Your task to perform on an android device: toggle wifi Image 0: 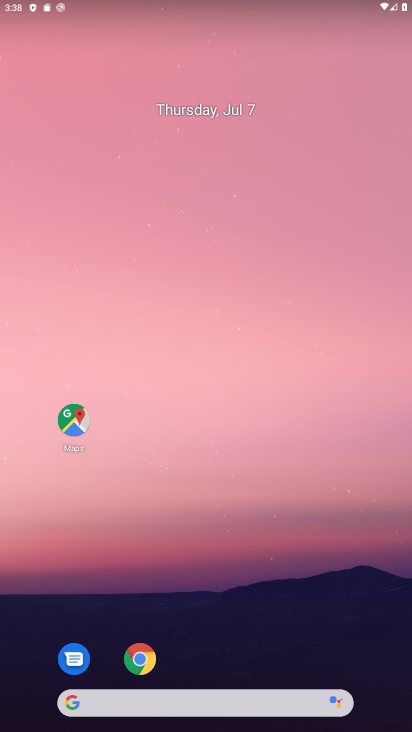
Step 0: drag from (210, 687) to (326, 45)
Your task to perform on an android device: toggle wifi Image 1: 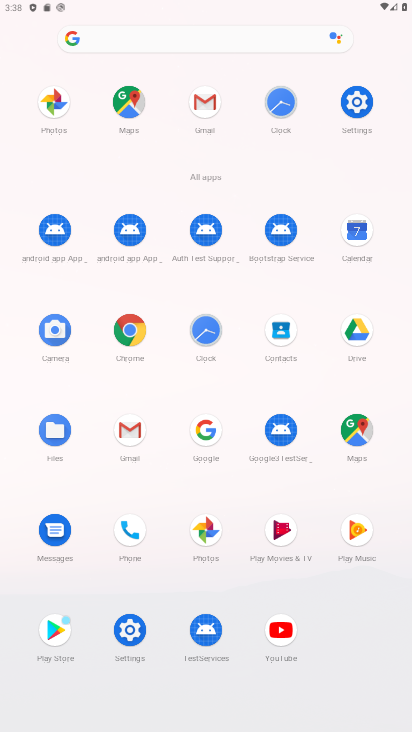
Step 1: click (119, 632)
Your task to perform on an android device: toggle wifi Image 2: 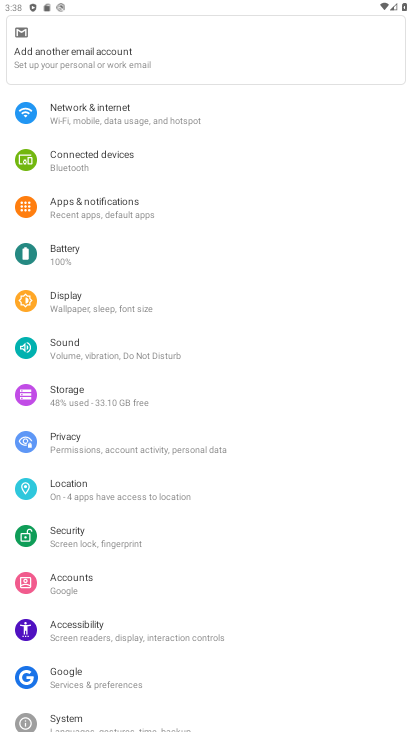
Step 2: click (224, 120)
Your task to perform on an android device: toggle wifi Image 3: 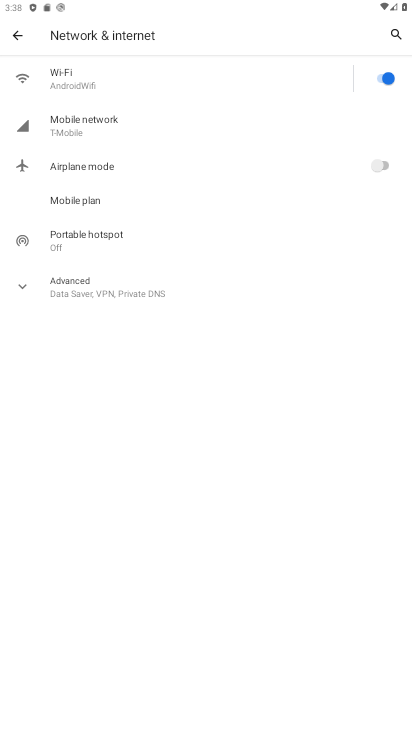
Step 3: click (372, 72)
Your task to perform on an android device: toggle wifi Image 4: 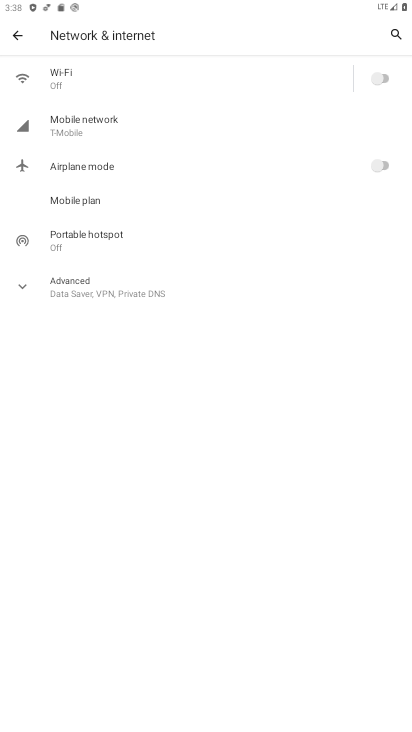
Step 4: task complete